Your task to perform on an android device: turn on translation in the chrome app Image 0: 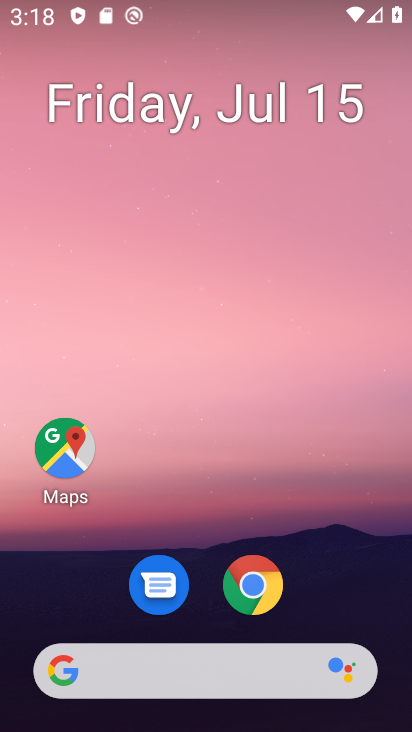
Step 0: click (270, 599)
Your task to perform on an android device: turn on translation in the chrome app Image 1: 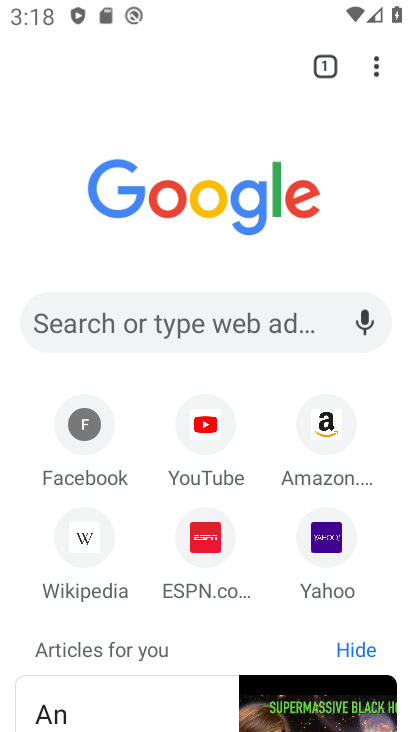
Step 1: drag from (377, 79) to (190, 567)
Your task to perform on an android device: turn on translation in the chrome app Image 2: 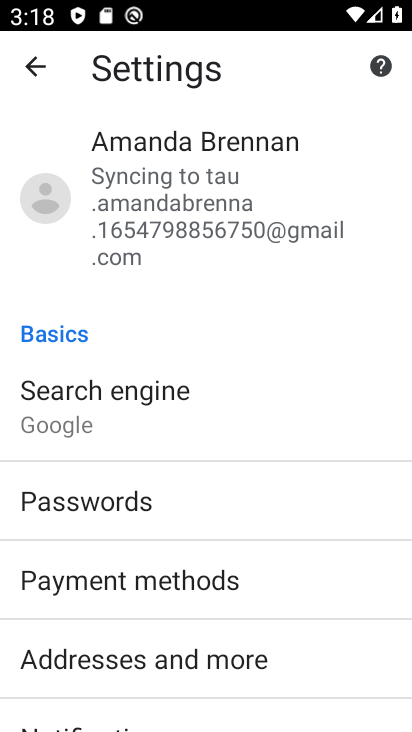
Step 2: drag from (174, 624) to (166, 401)
Your task to perform on an android device: turn on translation in the chrome app Image 3: 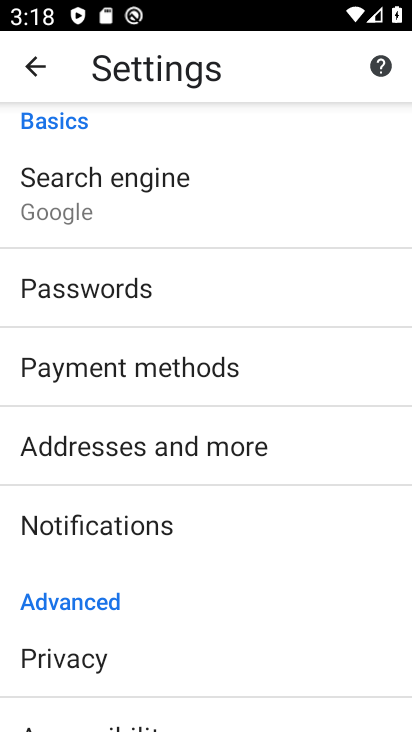
Step 3: drag from (157, 629) to (115, 157)
Your task to perform on an android device: turn on translation in the chrome app Image 4: 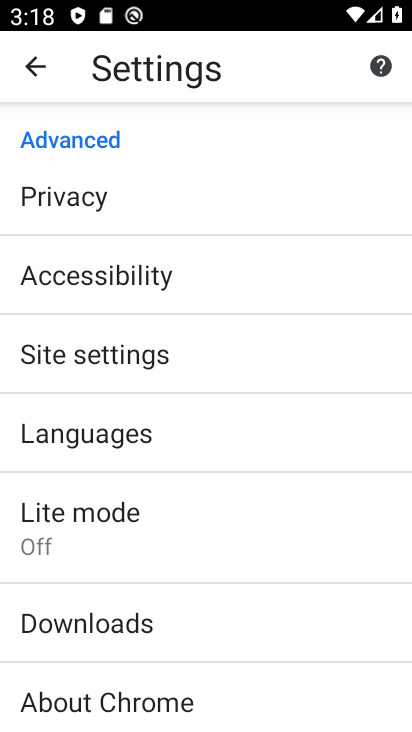
Step 4: click (119, 461)
Your task to perform on an android device: turn on translation in the chrome app Image 5: 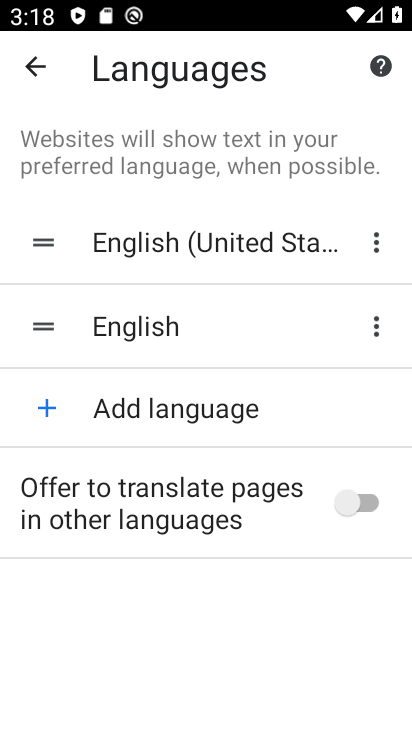
Step 5: click (371, 498)
Your task to perform on an android device: turn on translation in the chrome app Image 6: 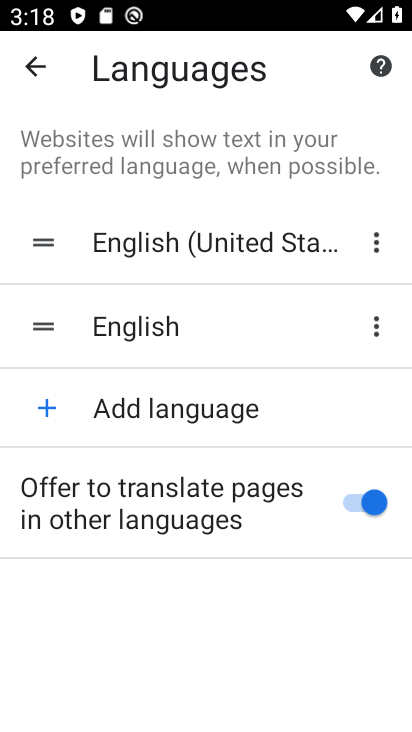
Step 6: task complete